Your task to perform on an android device: What's the weather going to be tomorrow? Image 0: 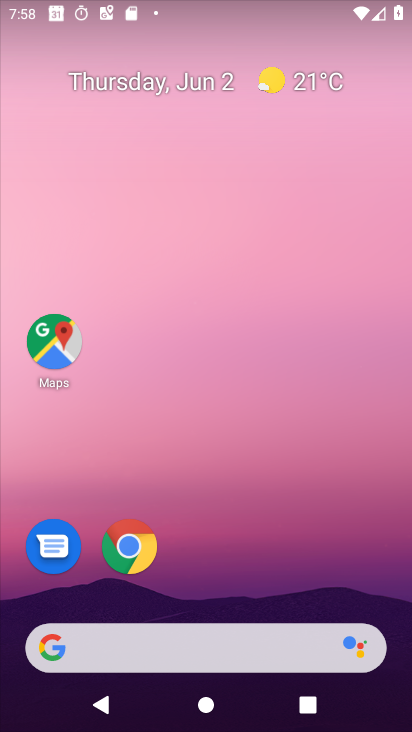
Step 0: drag from (340, 557) to (301, 131)
Your task to perform on an android device: What's the weather going to be tomorrow? Image 1: 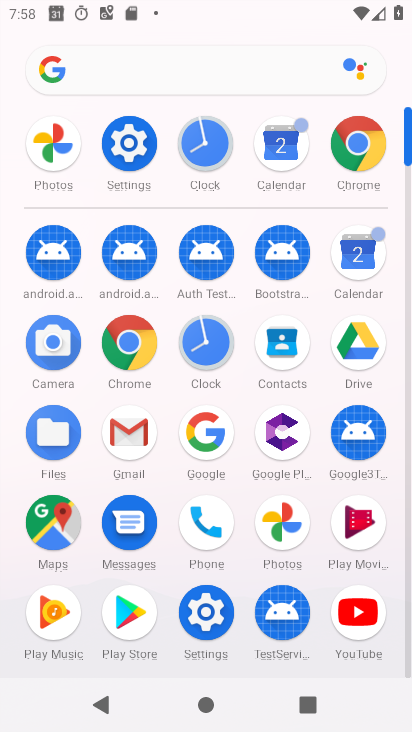
Step 1: click (133, 356)
Your task to perform on an android device: What's the weather going to be tomorrow? Image 2: 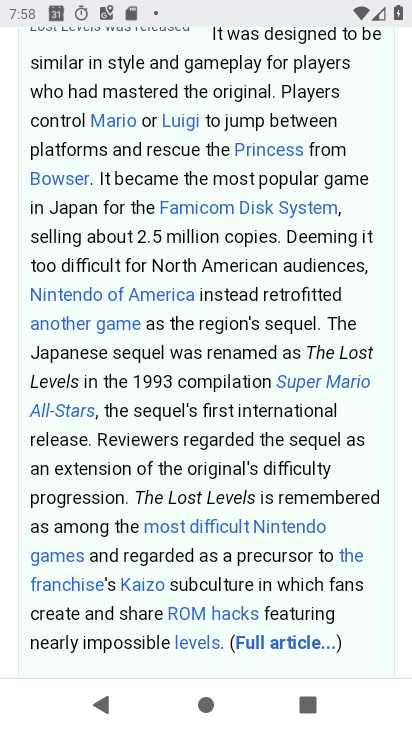
Step 2: drag from (208, 117) to (215, 339)
Your task to perform on an android device: What's the weather going to be tomorrow? Image 3: 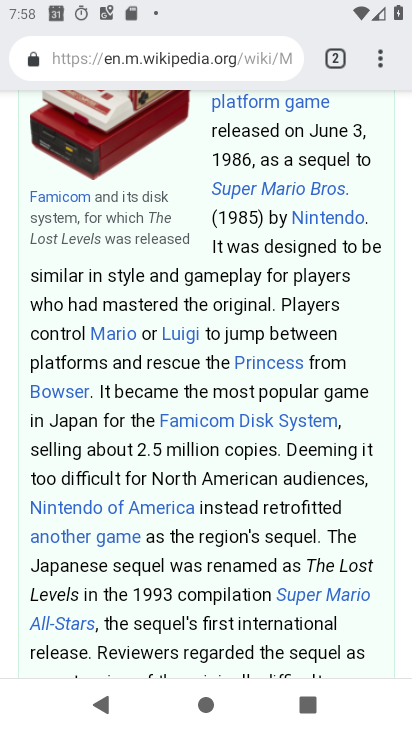
Step 3: click (215, 55)
Your task to perform on an android device: What's the weather going to be tomorrow? Image 4: 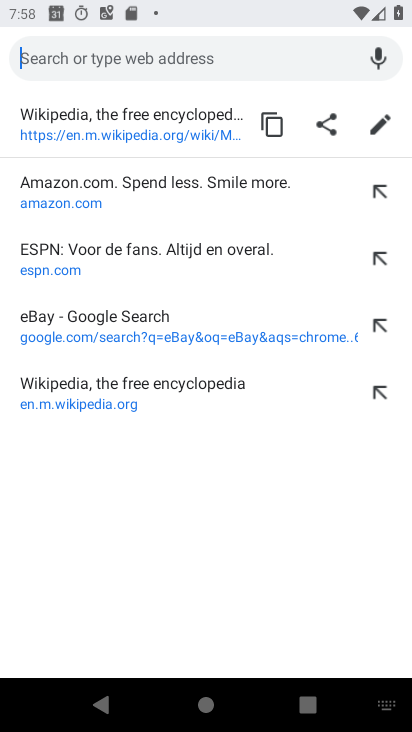
Step 4: type "what's the weather going to be tomorrow"
Your task to perform on an android device: What's the weather going to be tomorrow? Image 5: 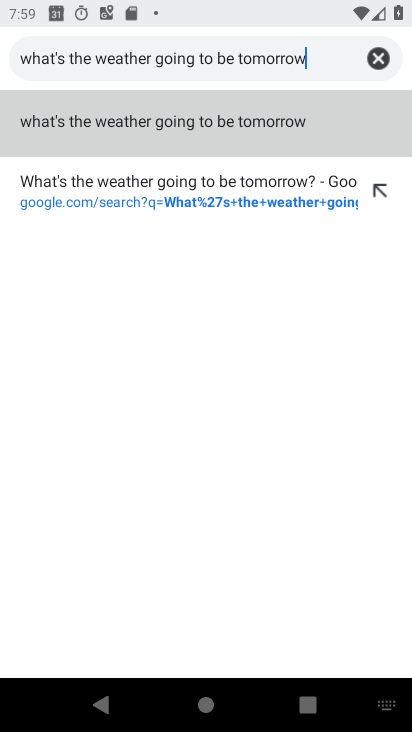
Step 5: click (244, 122)
Your task to perform on an android device: What's the weather going to be tomorrow? Image 6: 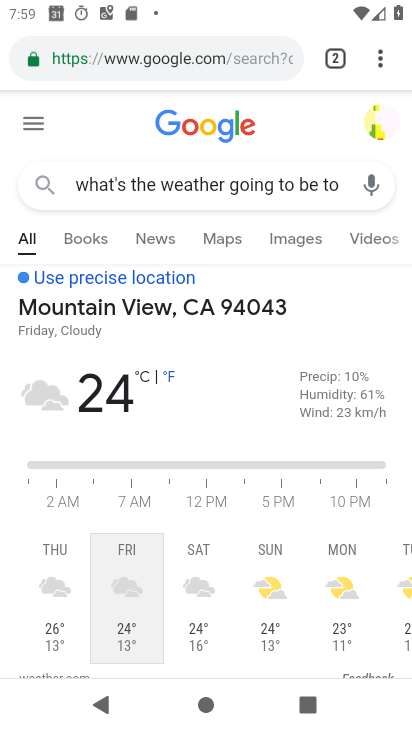
Step 6: task complete